Your task to perform on an android device: Open the stopwatch Image 0: 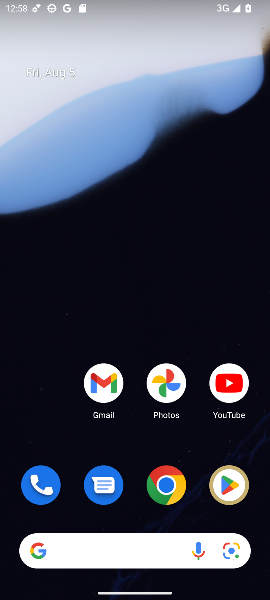
Step 0: press home button
Your task to perform on an android device: Open the stopwatch Image 1: 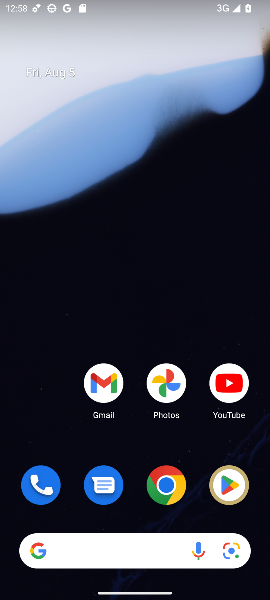
Step 1: drag from (39, 399) to (49, 32)
Your task to perform on an android device: Open the stopwatch Image 2: 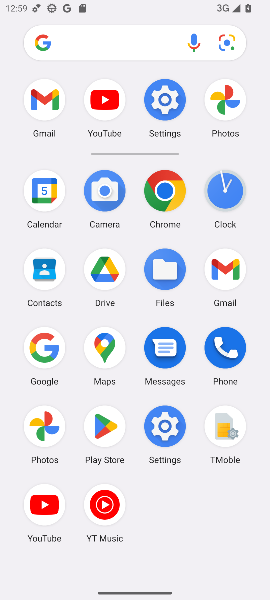
Step 2: click (224, 198)
Your task to perform on an android device: Open the stopwatch Image 3: 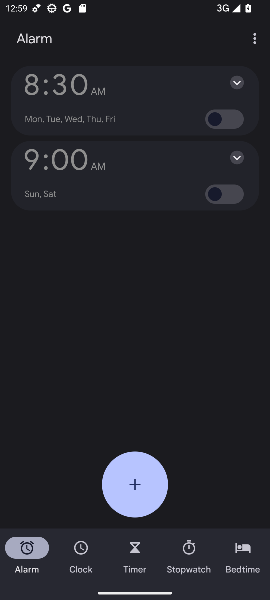
Step 3: click (257, 35)
Your task to perform on an android device: Open the stopwatch Image 4: 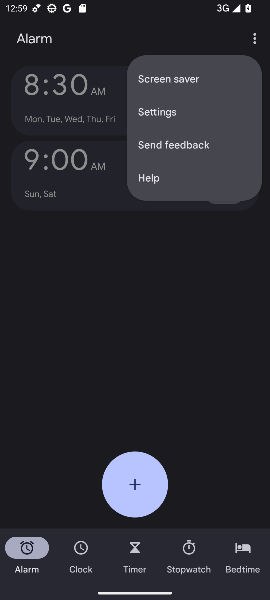
Step 4: click (168, 336)
Your task to perform on an android device: Open the stopwatch Image 5: 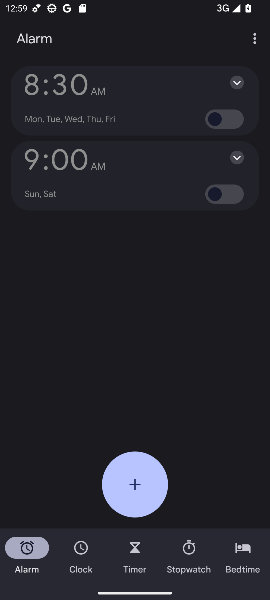
Step 5: click (188, 549)
Your task to perform on an android device: Open the stopwatch Image 6: 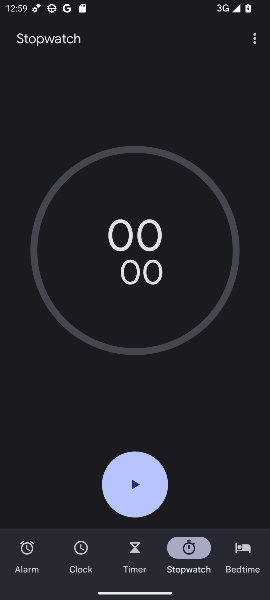
Step 6: task complete